Your task to perform on an android device: Show me popular games on the Play Store Image 0: 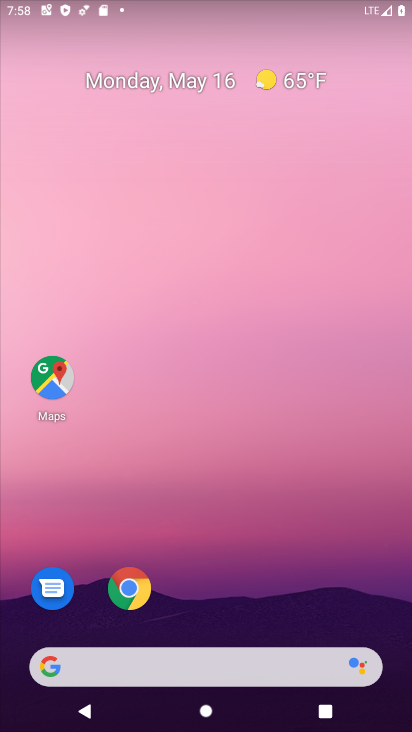
Step 0: drag from (203, 565) to (176, 31)
Your task to perform on an android device: Show me popular games on the Play Store Image 1: 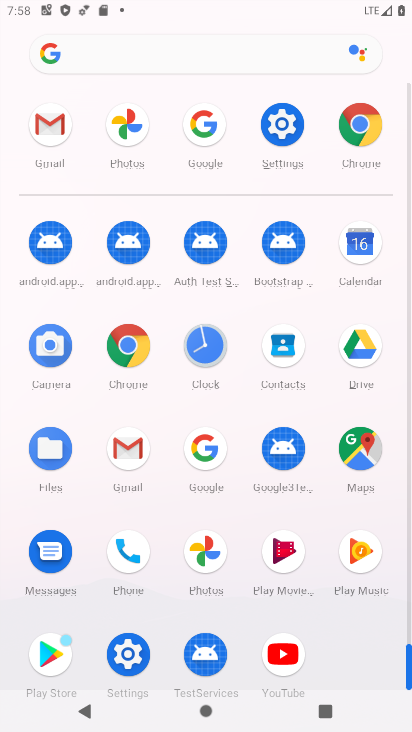
Step 1: click (47, 654)
Your task to perform on an android device: Show me popular games on the Play Store Image 2: 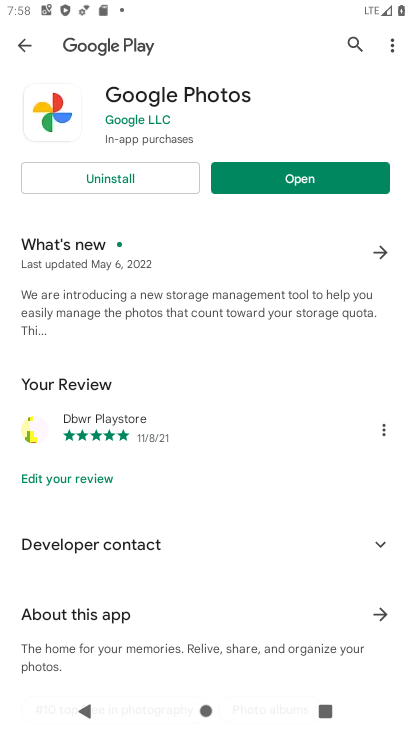
Step 2: click (23, 45)
Your task to perform on an android device: Show me popular games on the Play Store Image 3: 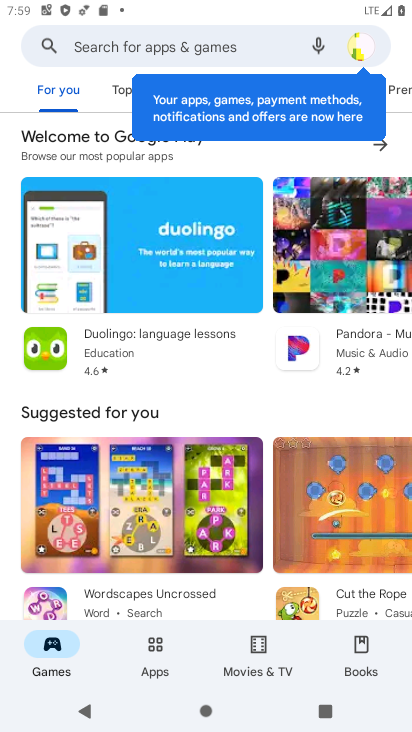
Step 3: task complete